Your task to perform on an android device: turn off data saver in the chrome app Image 0: 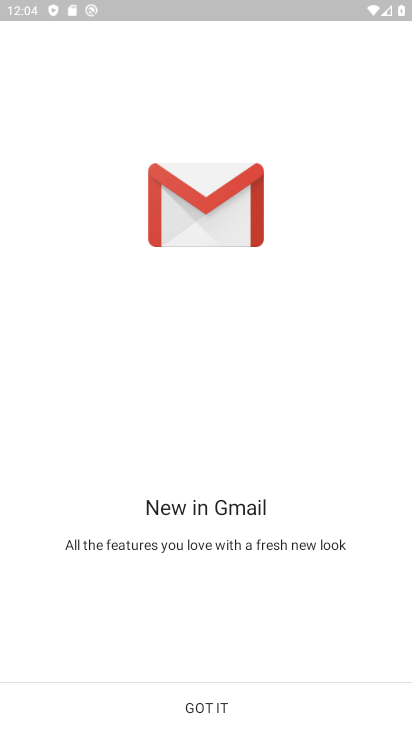
Step 0: press home button
Your task to perform on an android device: turn off data saver in the chrome app Image 1: 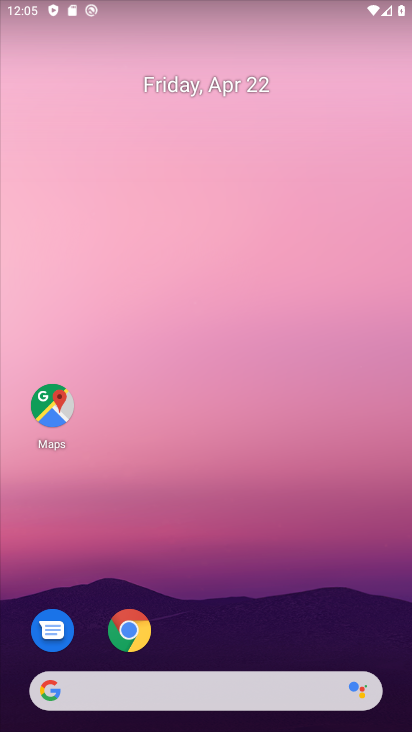
Step 1: click (125, 623)
Your task to perform on an android device: turn off data saver in the chrome app Image 2: 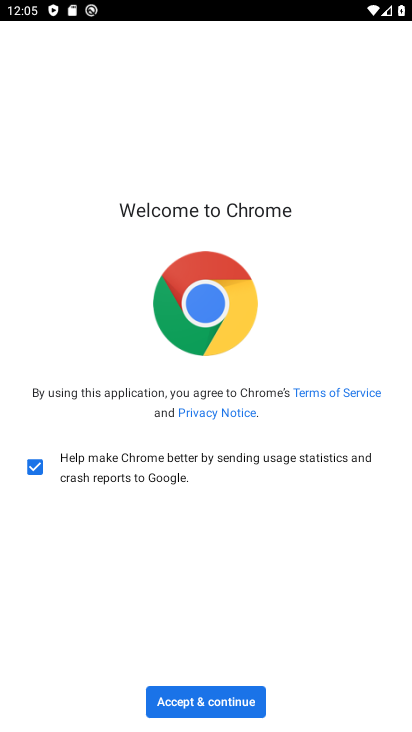
Step 2: click (181, 701)
Your task to perform on an android device: turn off data saver in the chrome app Image 3: 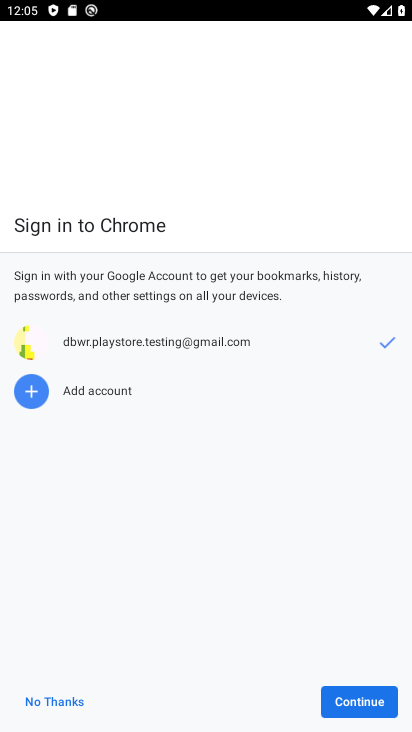
Step 3: click (384, 698)
Your task to perform on an android device: turn off data saver in the chrome app Image 4: 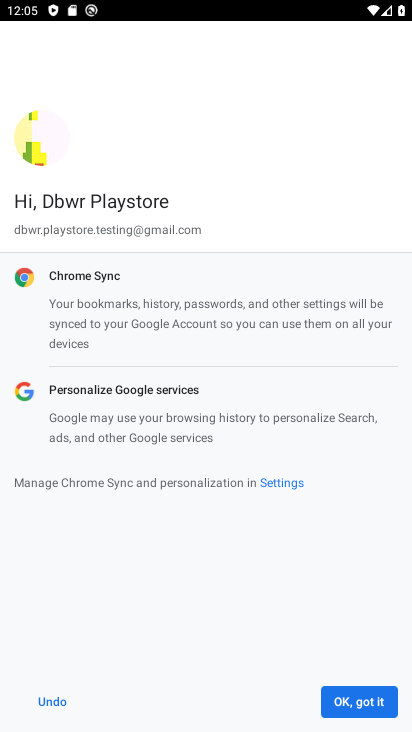
Step 4: click (369, 707)
Your task to perform on an android device: turn off data saver in the chrome app Image 5: 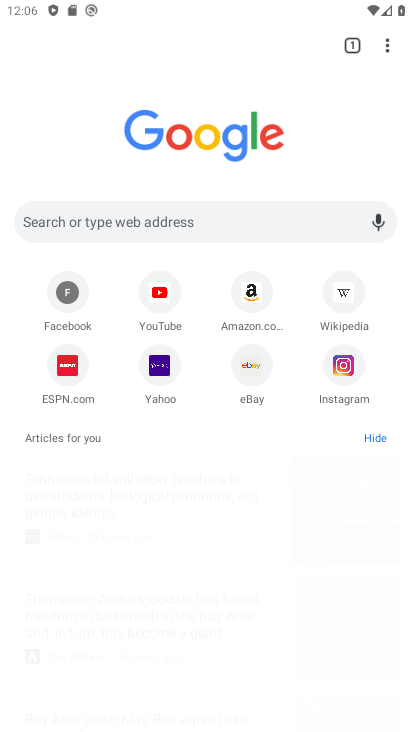
Step 5: click (383, 40)
Your task to perform on an android device: turn off data saver in the chrome app Image 6: 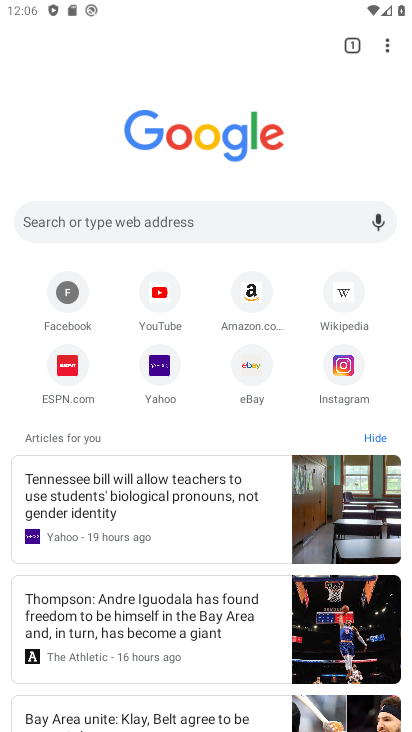
Step 6: click (383, 40)
Your task to perform on an android device: turn off data saver in the chrome app Image 7: 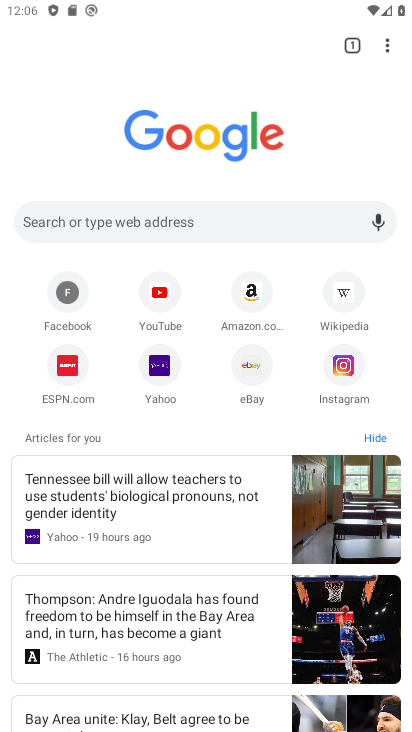
Step 7: click (379, 47)
Your task to perform on an android device: turn off data saver in the chrome app Image 8: 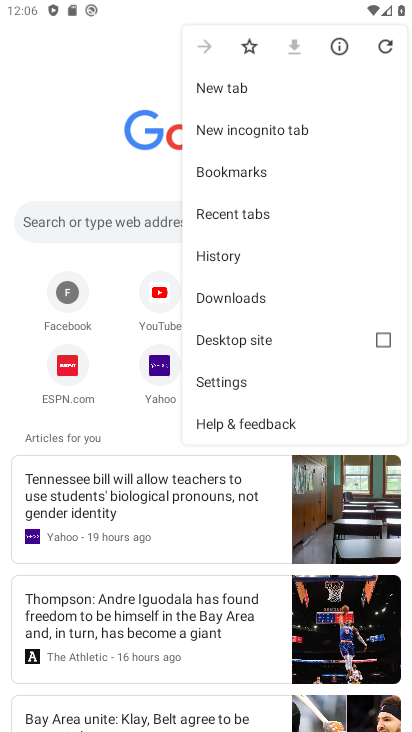
Step 8: click (235, 401)
Your task to perform on an android device: turn off data saver in the chrome app Image 9: 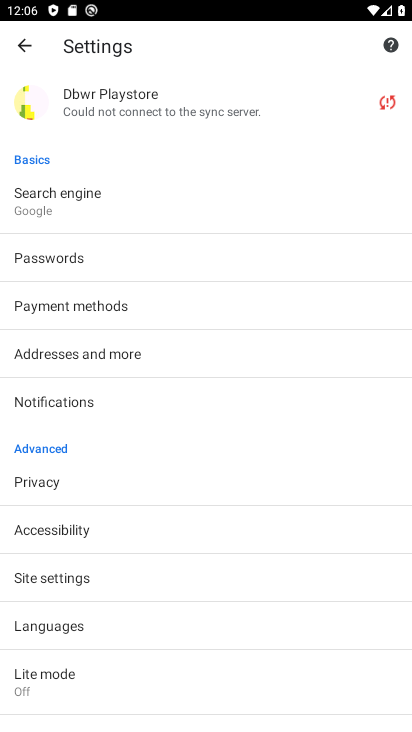
Step 9: click (66, 683)
Your task to perform on an android device: turn off data saver in the chrome app Image 10: 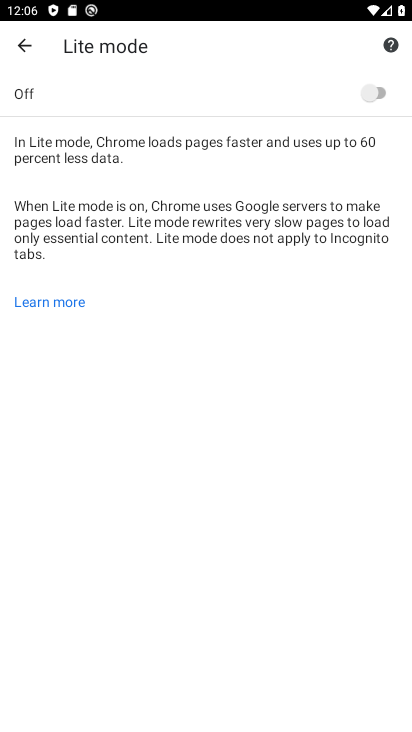
Step 10: task complete